Your task to perform on an android device: turn on airplane mode Image 0: 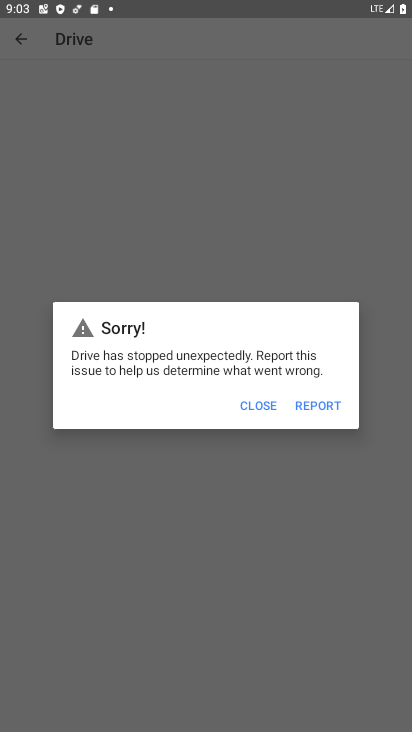
Step 0: press home button
Your task to perform on an android device: turn on airplane mode Image 1: 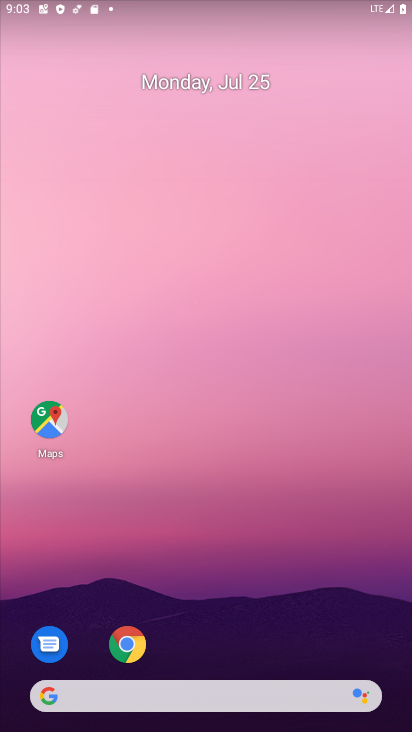
Step 1: drag from (183, 553) to (226, 96)
Your task to perform on an android device: turn on airplane mode Image 2: 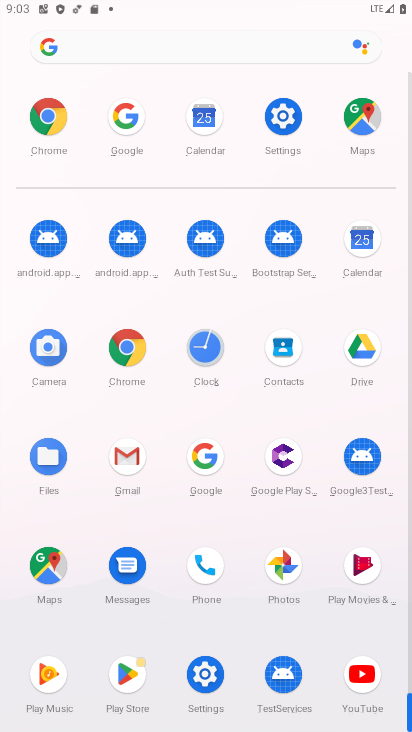
Step 2: click (214, 680)
Your task to perform on an android device: turn on airplane mode Image 3: 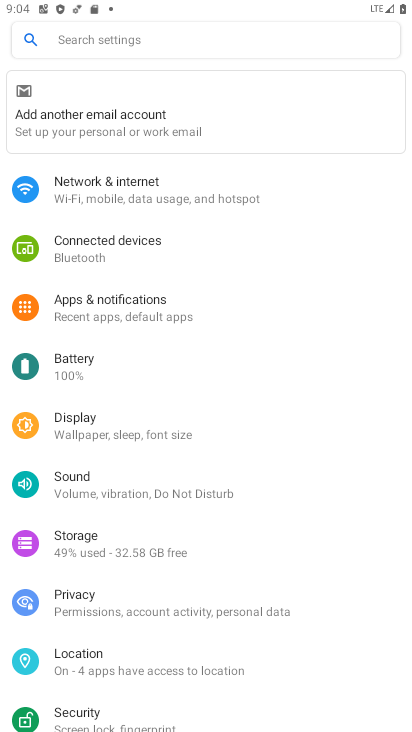
Step 3: click (165, 200)
Your task to perform on an android device: turn on airplane mode Image 4: 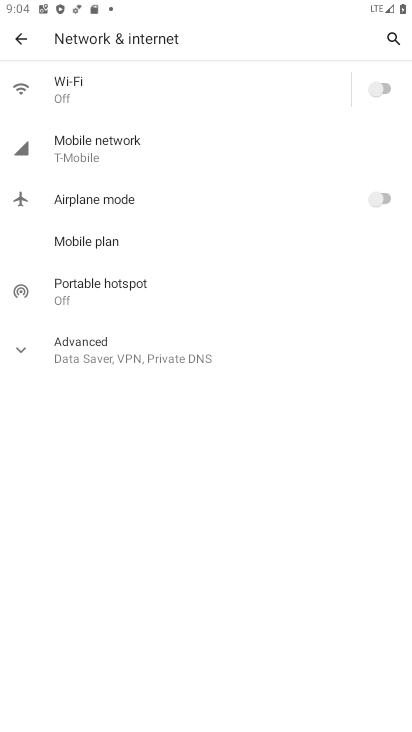
Step 4: click (171, 207)
Your task to perform on an android device: turn on airplane mode Image 5: 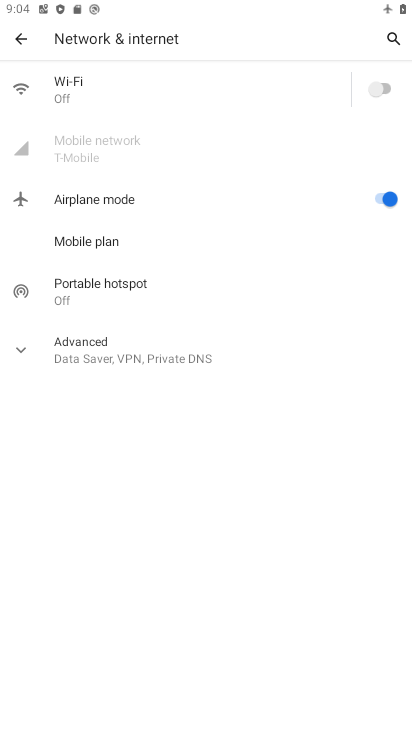
Step 5: task complete